Your task to perform on an android device: Open the calendar and show me this week's events? Image 0: 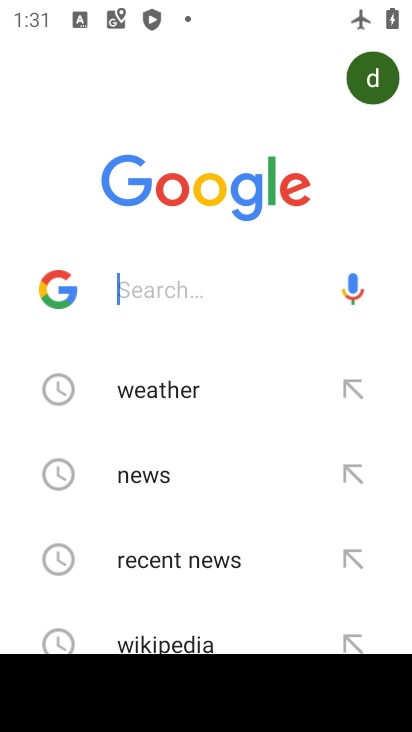
Step 0: press home button
Your task to perform on an android device: Open the calendar and show me this week's events? Image 1: 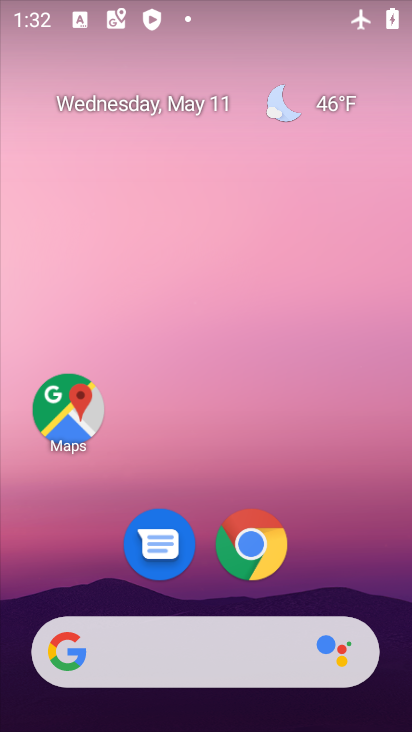
Step 1: drag from (393, 629) to (299, 143)
Your task to perform on an android device: Open the calendar and show me this week's events? Image 2: 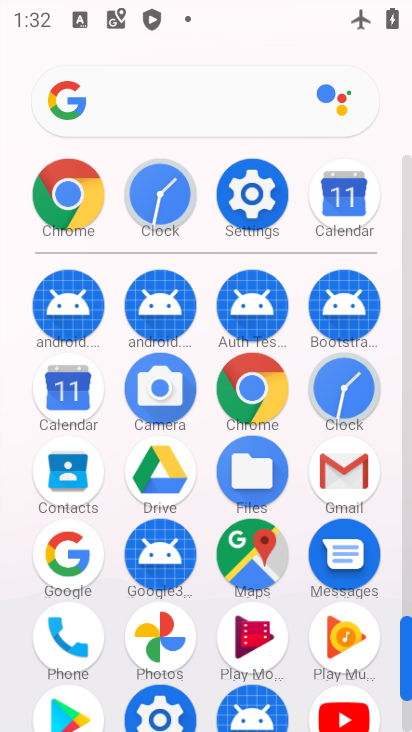
Step 2: click (408, 719)
Your task to perform on an android device: Open the calendar and show me this week's events? Image 3: 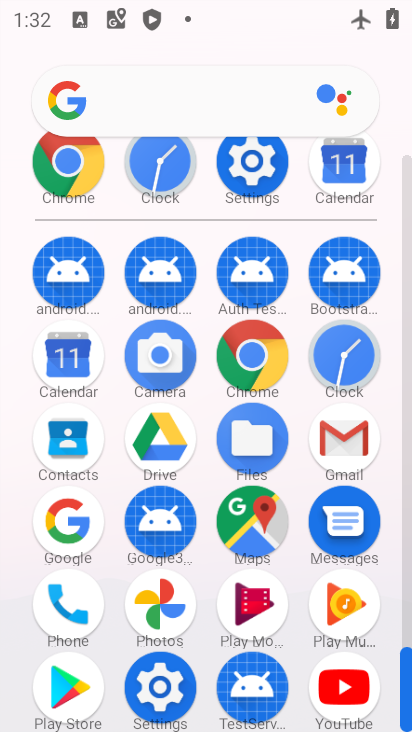
Step 3: click (67, 353)
Your task to perform on an android device: Open the calendar and show me this week's events? Image 4: 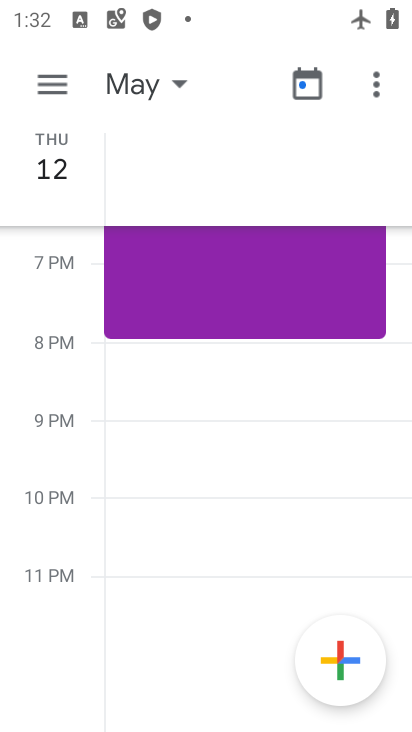
Step 4: click (49, 82)
Your task to perform on an android device: Open the calendar and show me this week's events? Image 5: 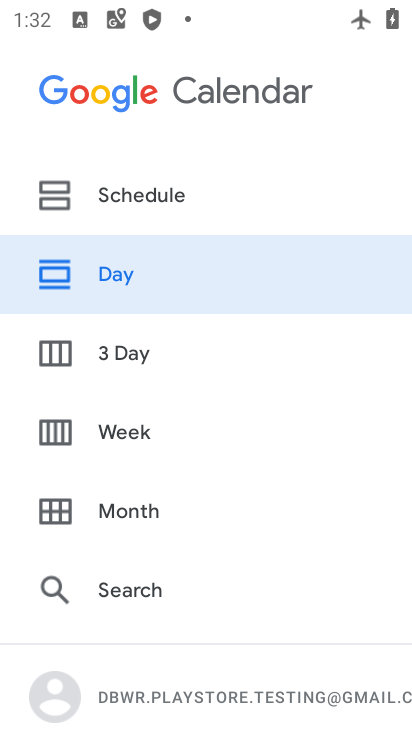
Step 5: click (126, 432)
Your task to perform on an android device: Open the calendar and show me this week's events? Image 6: 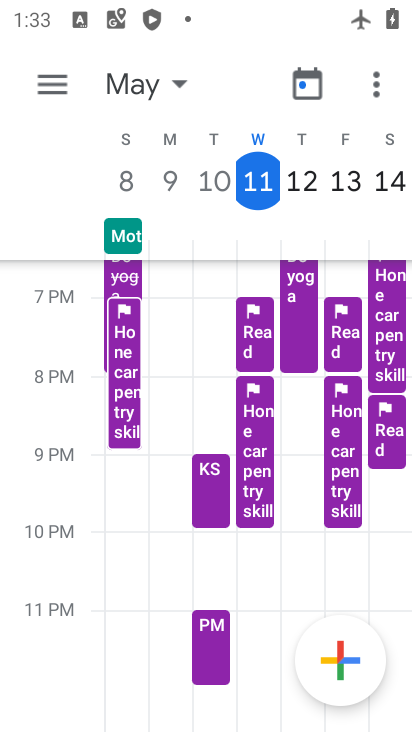
Step 6: click (176, 84)
Your task to perform on an android device: Open the calendar and show me this week's events? Image 7: 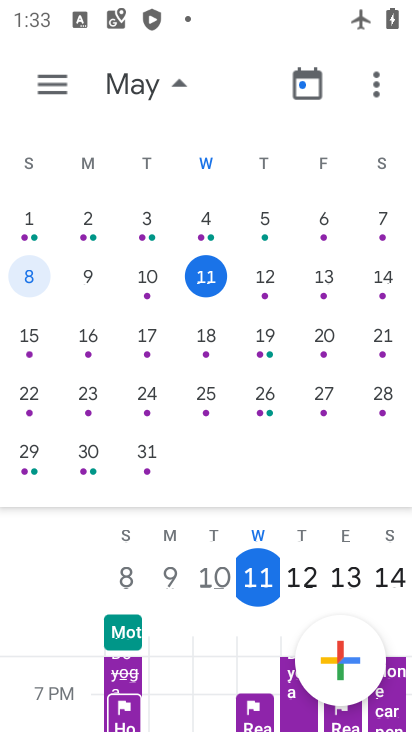
Step 7: click (205, 269)
Your task to perform on an android device: Open the calendar and show me this week's events? Image 8: 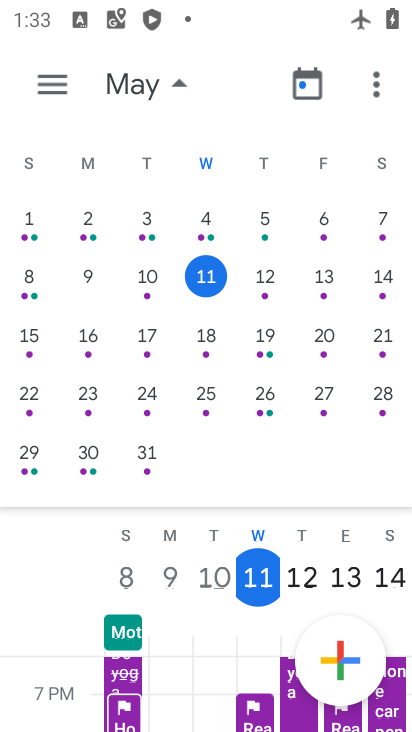
Step 8: click (176, 89)
Your task to perform on an android device: Open the calendar and show me this week's events? Image 9: 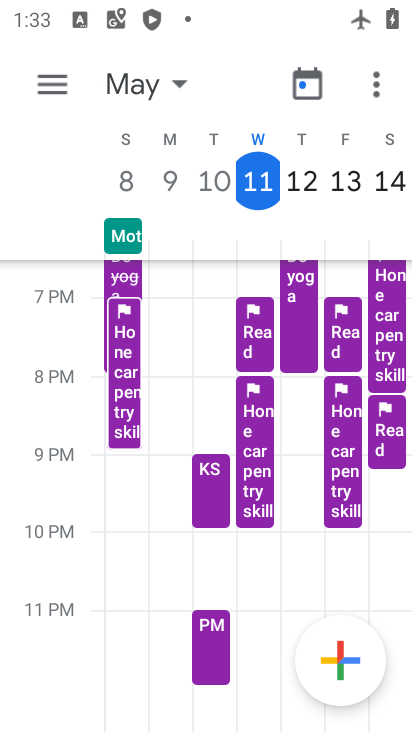
Step 9: task complete